Your task to perform on an android device: Open Chrome and go to the settings page Image 0: 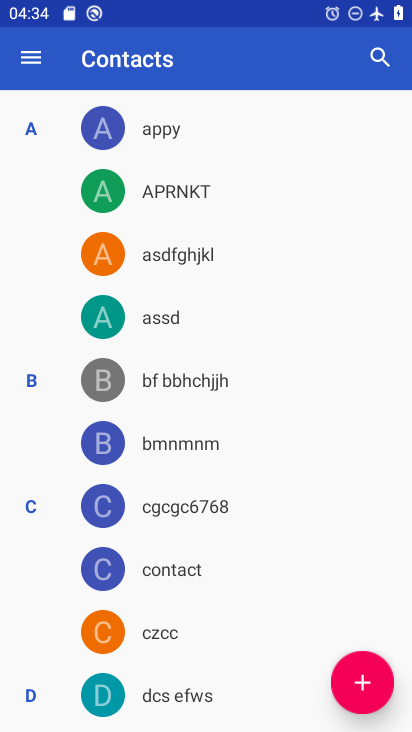
Step 0: press home button
Your task to perform on an android device: Open Chrome and go to the settings page Image 1: 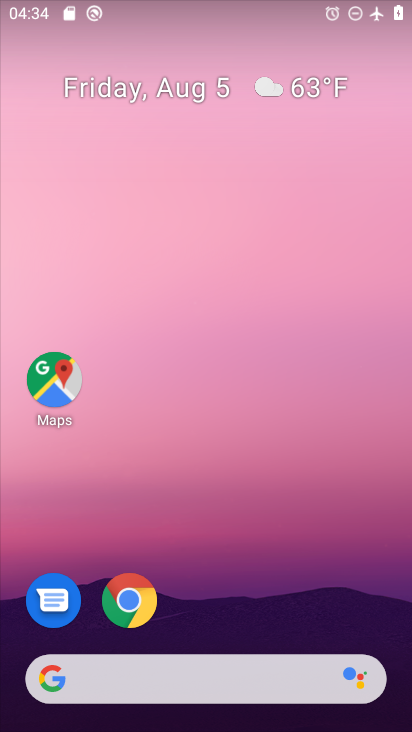
Step 1: click (129, 603)
Your task to perform on an android device: Open Chrome and go to the settings page Image 2: 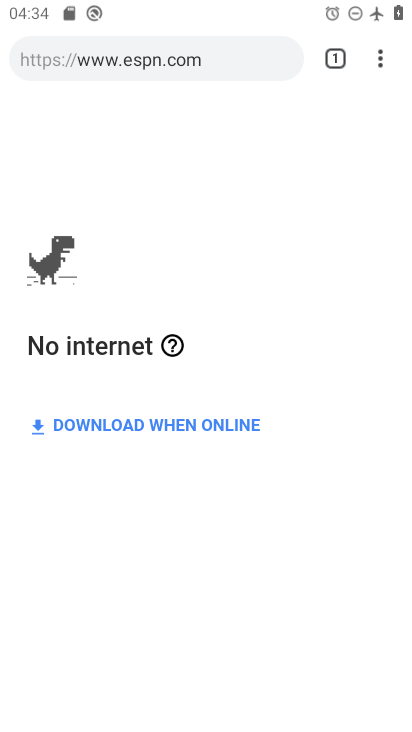
Step 2: click (381, 63)
Your task to perform on an android device: Open Chrome and go to the settings page Image 3: 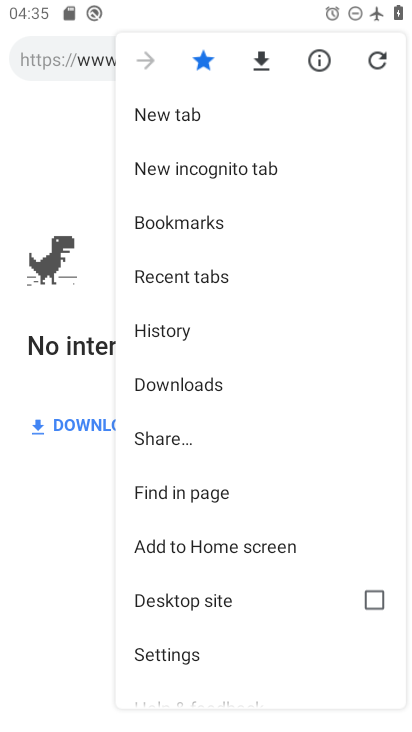
Step 3: click (173, 653)
Your task to perform on an android device: Open Chrome and go to the settings page Image 4: 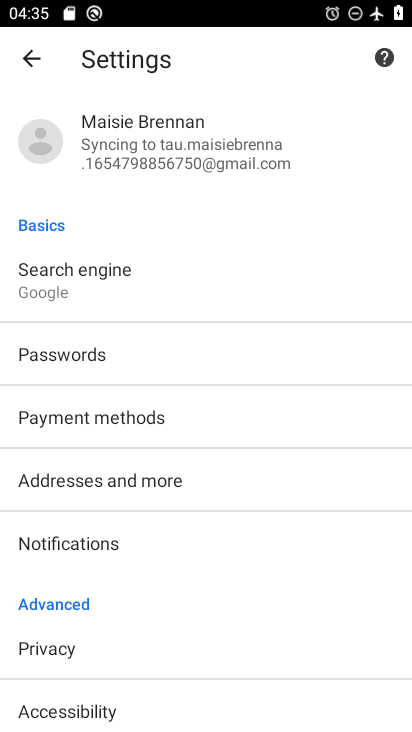
Step 4: task complete